Your task to perform on an android device: Go to privacy settings Image 0: 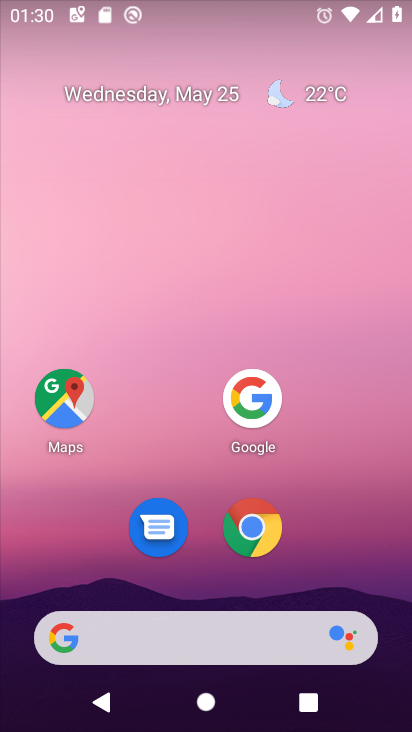
Step 0: drag from (224, 627) to (356, 109)
Your task to perform on an android device: Go to privacy settings Image 1: 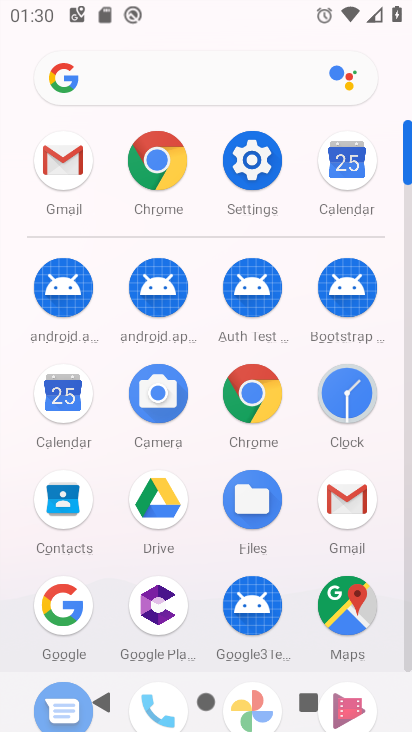
Step 1: click (255, 163)
Your task to perform on an android device: Go to privacy settings Image 2: 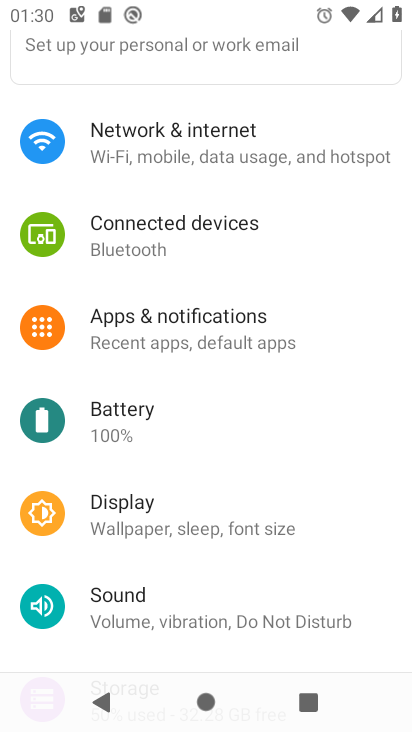
Step 2: drag from (199, 514) to (342, 150)
Your task to perform on an android device: Go to privacy settings Image 3: 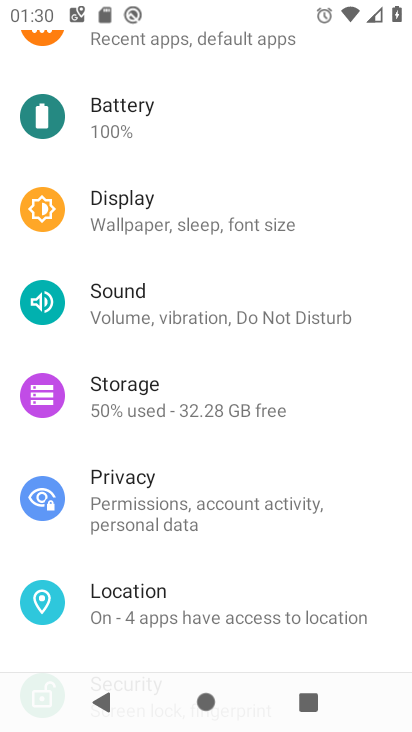
Step 3: click (167, 469)
Your task to perform on an android device: Go to privacy settings Image 4: 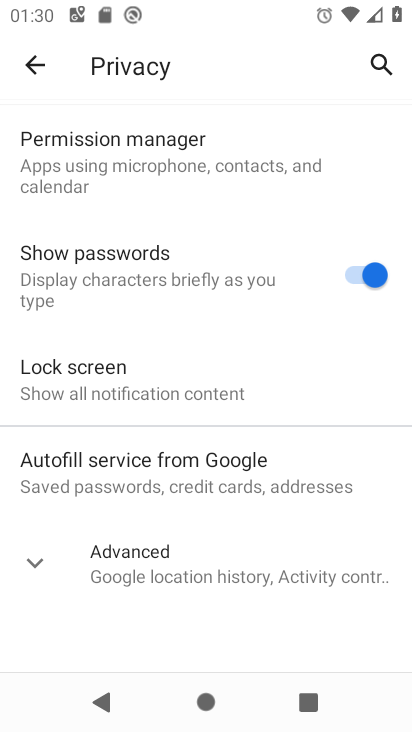
Step 4: task complete